Your task to perform on an android device: install app "HBO Max: Stream TV & Movies" Image 0: 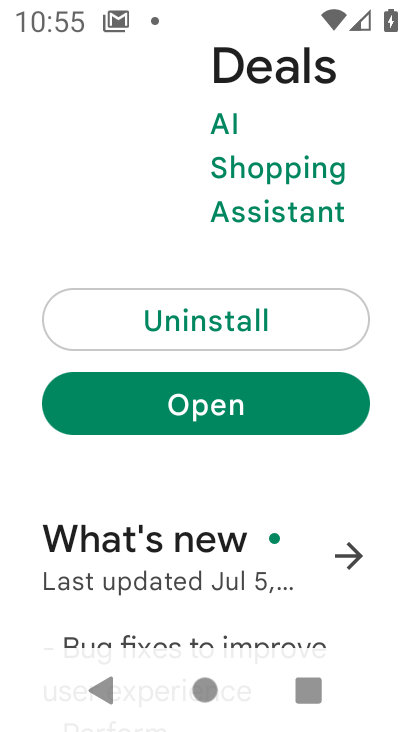
Step 0: press home button
Your task to perform on an android device: install app "HBO Max: Stream TV & Movies" Image 1: 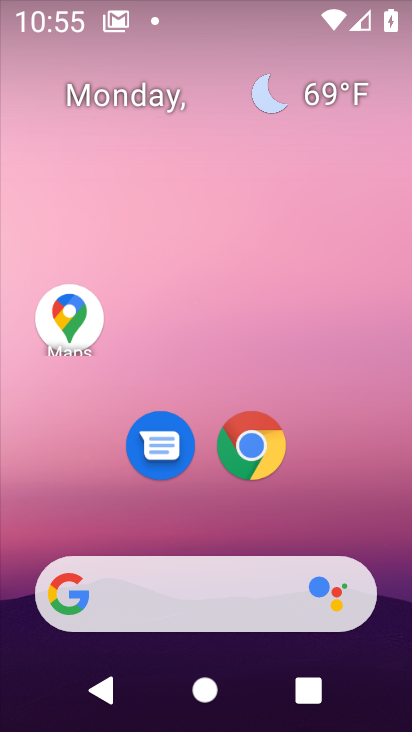
Step 1: drag from (209, 667) to (247, 136)
Your task to perform on an android device: install app "HBO Max: Stream TV & Movies" Image 2: 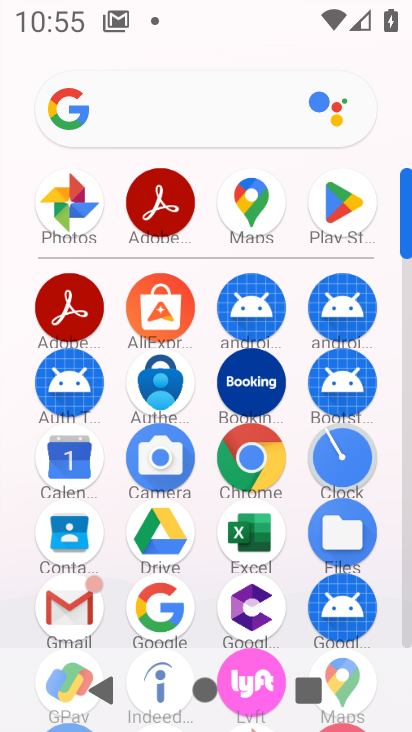
Step 2: click (353, 207)
Your task to perform on an android device: install app "HBO Max: Stream TV & Movies" Image 3: 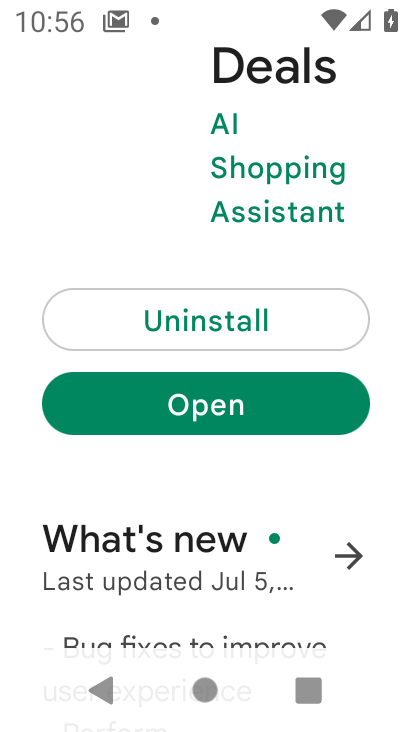
Step 3: drag from (166, 220) to (155, 582)
Your task to perform on an android device: install app "HBO Max: Stream TV & Movies" Image 4: 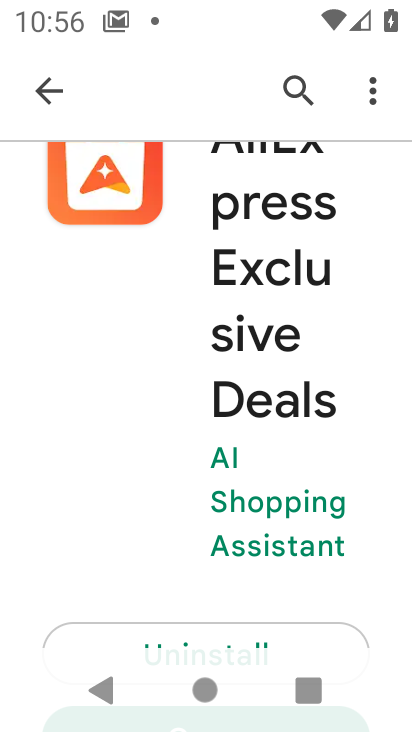
Step 4: click (52, 94)
Your task to perform on an android device: install app "HBO Max: Stream TV & Movies" Image 5: 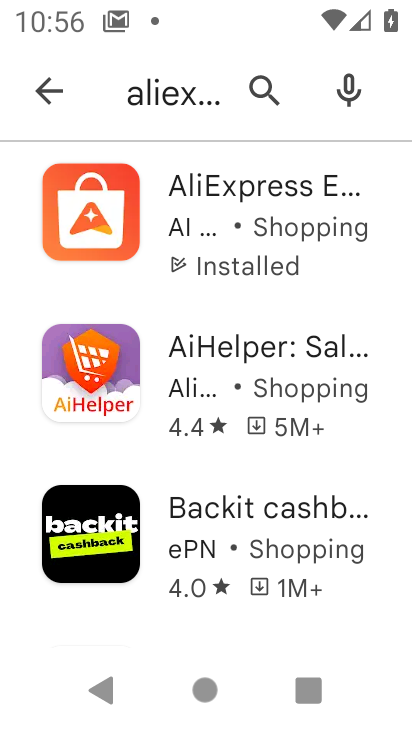
Step 5: click (59, 98)
Your task to perform on an android device: install app "HBO Max: Stream TV & Movies" Image 6: 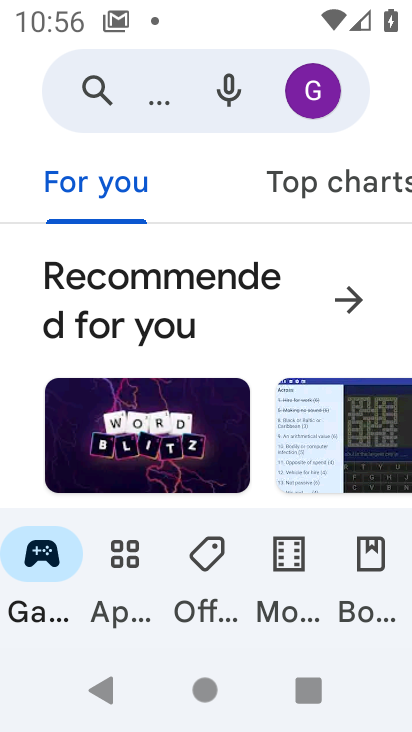
Step 6: click (107, 106)
Your task to perform on an android device: install app "HBO Max: Stream TV & Movies" Image 7: 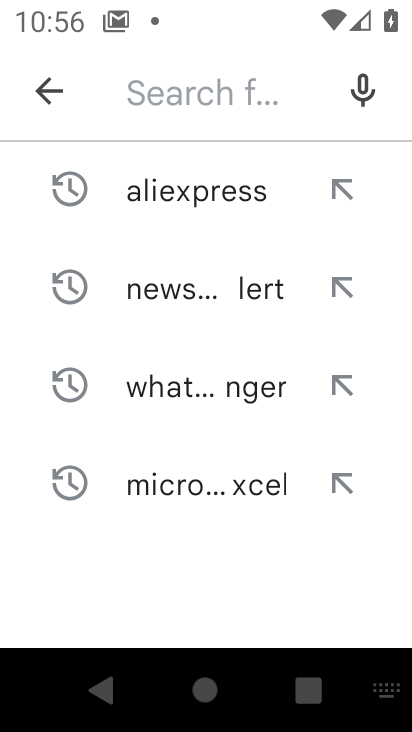
Step 7: type "HBO Max: Stream TV & Movies"
Your task to perform on an android device: install app "HBO Max: Stream TV & Movies" Image 8: 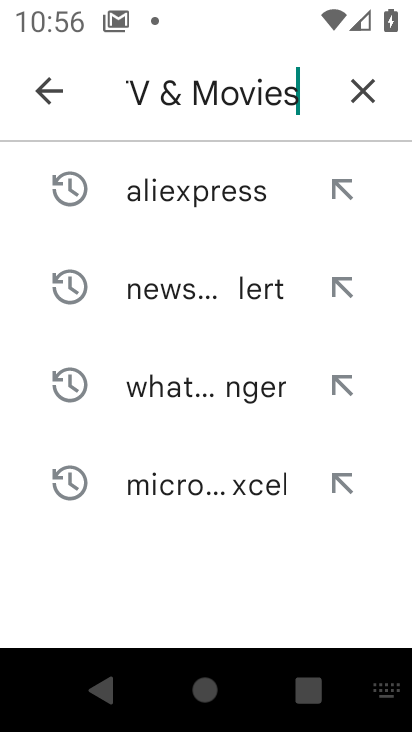
Step 8: type ""
Your task to perform on an android device: install app "HBO Max: Stream TV & Movies" Image 9: 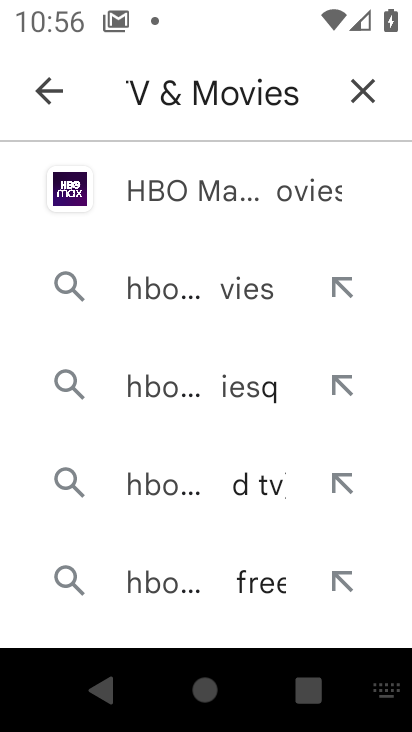
Step 9: click (271, 190)
Your task to perform on an android device: install app "HBO Max: Stream TV & Movies" Image 10: 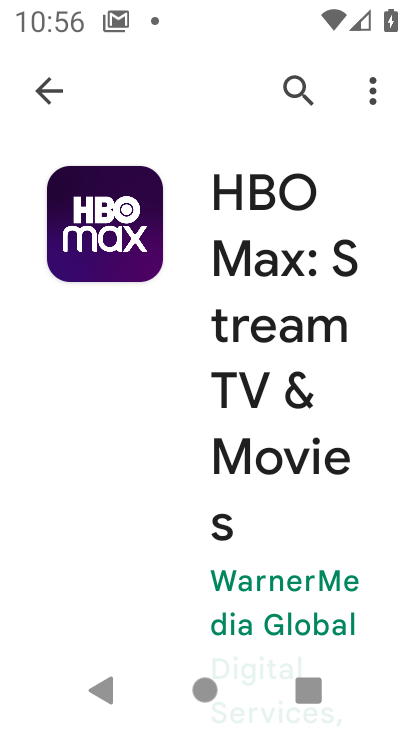
Step 10: drag from (294, 554) to (275, 186)
Your task to perform on an android device: install app "HBO Max: Stream TV & Movies" Image 11: 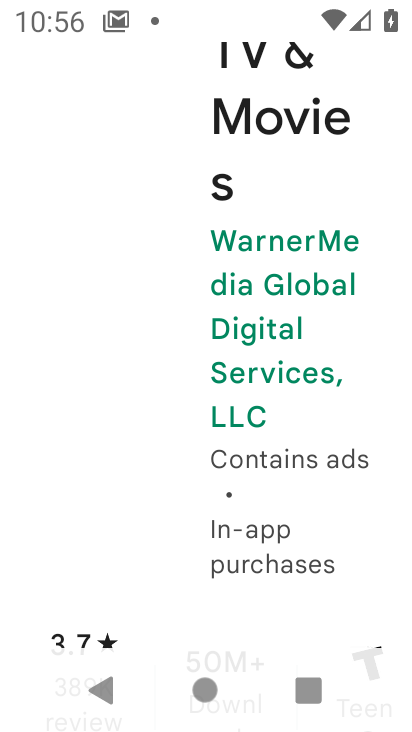
Step 11: drag from (242, 533) to (265, 200)
Your task to perform on an android device: install app "HBO Max: Stream TV & Movies" Image 12: 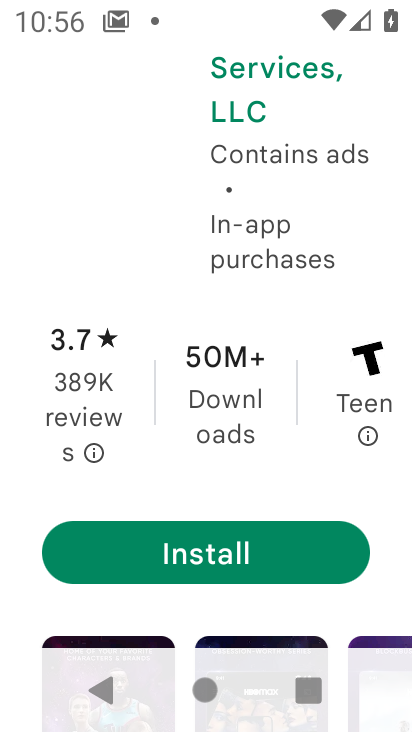
Step 12: click (293, 543)
Your task to perform on an android device: install app "HBO Max: Stream TV & Movies" Image 13: 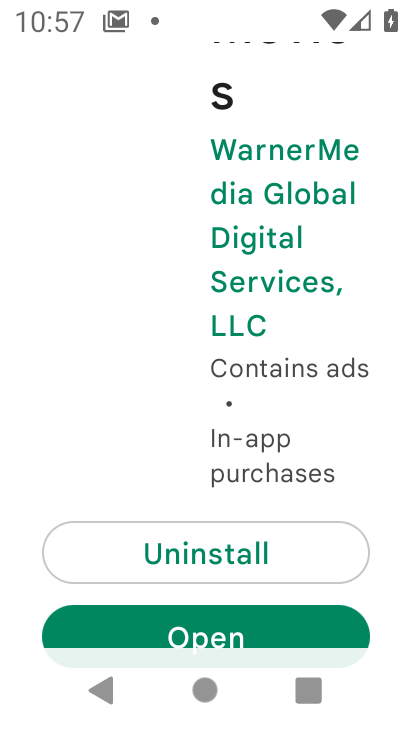
Step 13: task complete